Your task to perform on an android device: Open maps Image 0: 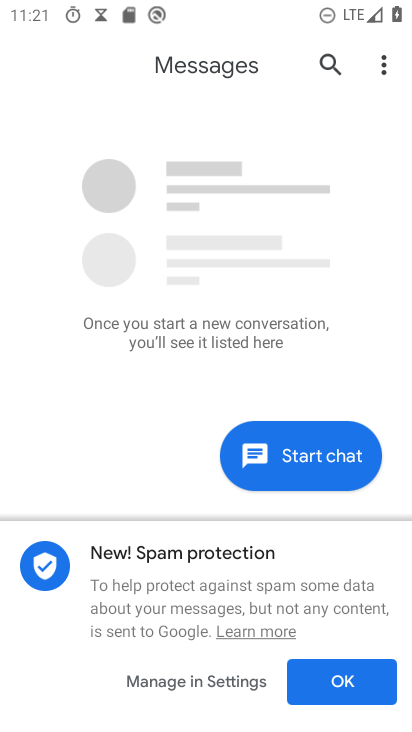
Step 0: press home button
Your task to perform on an android device: Open maps Image 1: 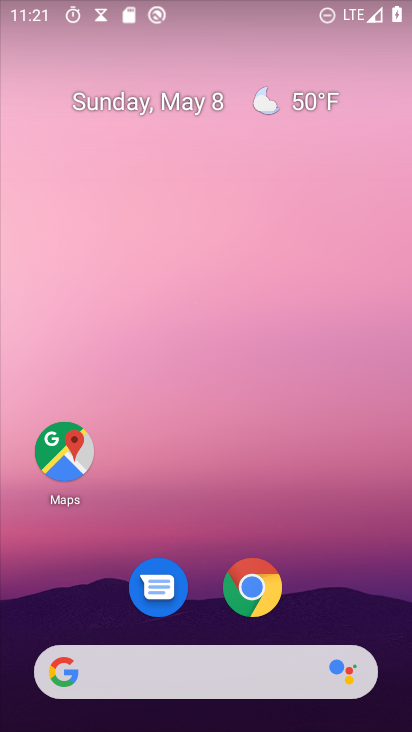
Step 1: click (61, 446)
Your task to perform on an android device: Open maps Image 2: 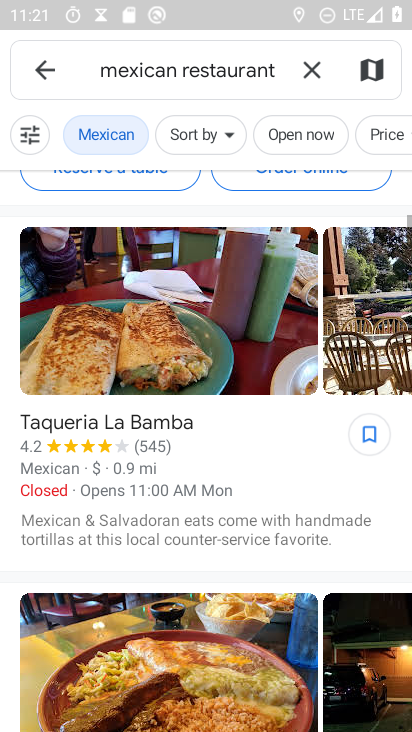
Step 2: task complete